Your task to perform on an android device: turn on sleep mode Image 0: 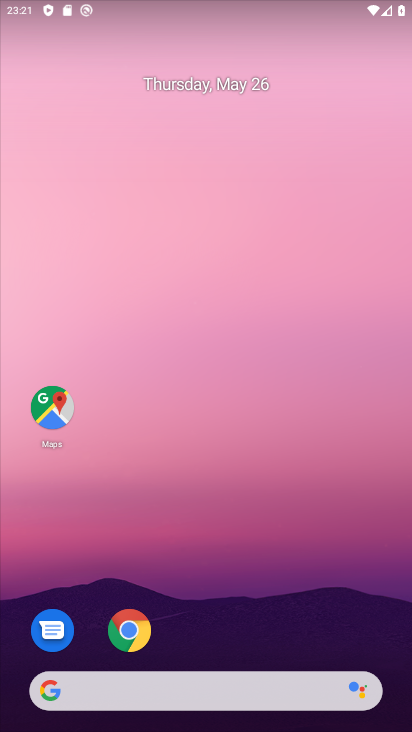
Step 0: drag from (262, 607) to (237, 144)
Your task to perform on an android device: turn on sleep mode Image 1: 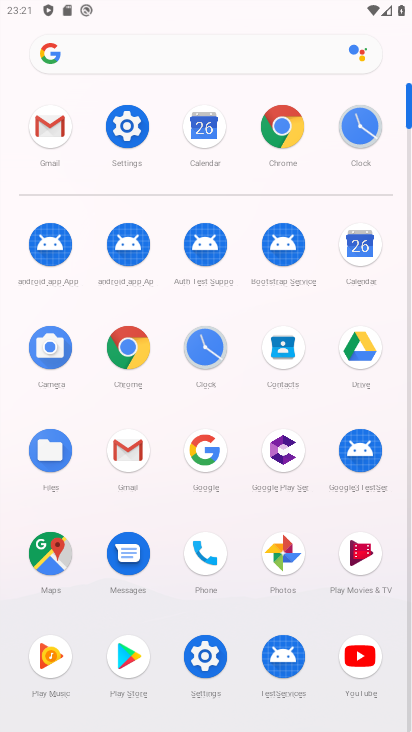
Step 1: click (125, 124)
Your task to perform on an android device: turn on sleep mode Image 2: 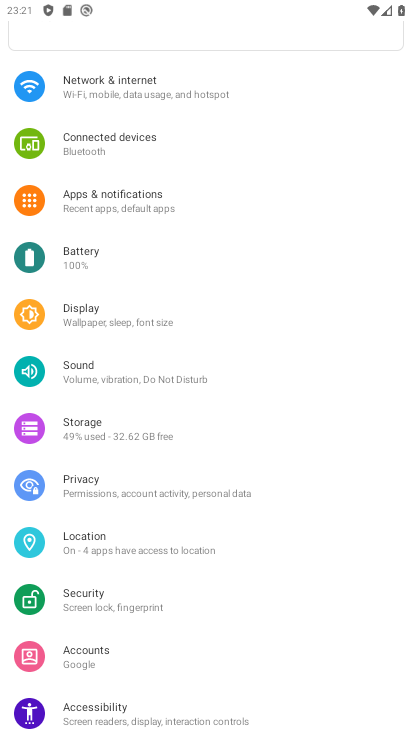
Step 2: click (128, 334)
Your task to perform on an android device: turn on sleep mode Image 3: 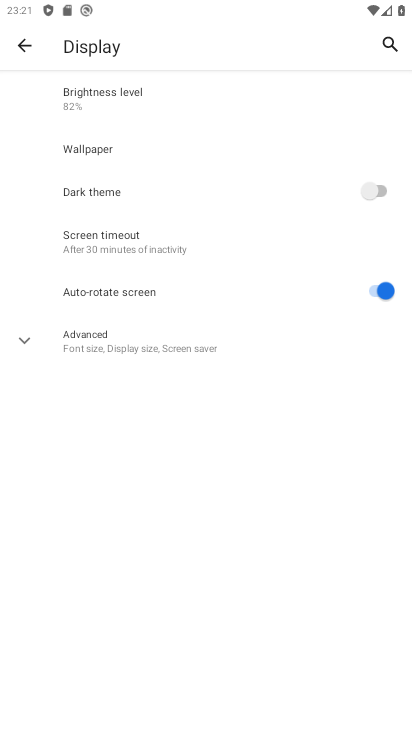
Step 3: click (126, 243)
Your task to perform on an android device: turn on sleep mode Image 4: 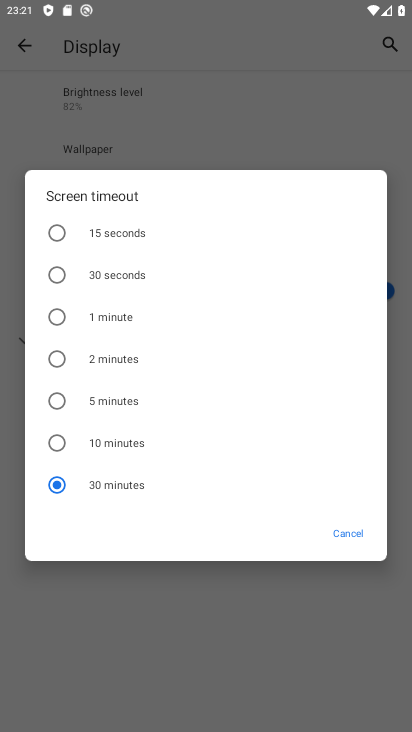
Step 4: click (60, 227)
Your task to perform on an android device: turn on sleep mode Image 5: 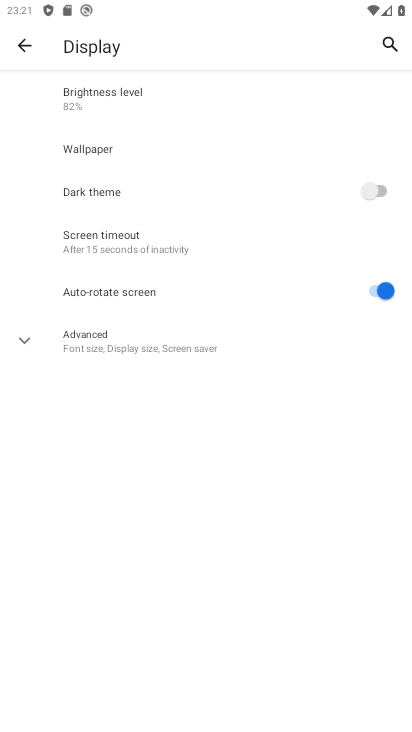
Step 5: task complete